Your task to perform on an android device: turn on javascript in the chrome app Image 0: 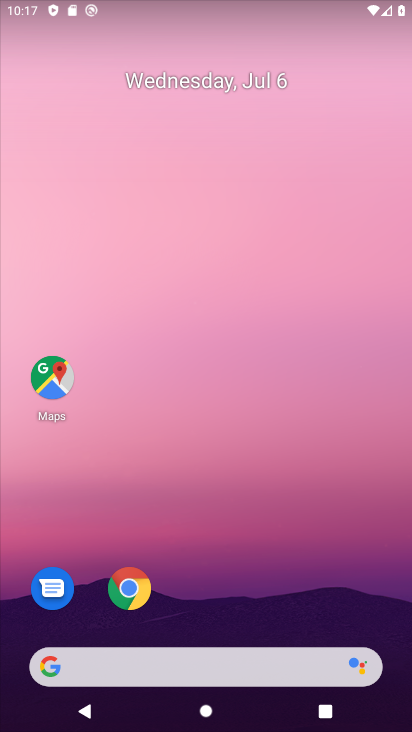
Step 0: click (124, 596)
Your task to perform on an android device: turn on javascript in the chrome app Image 1: 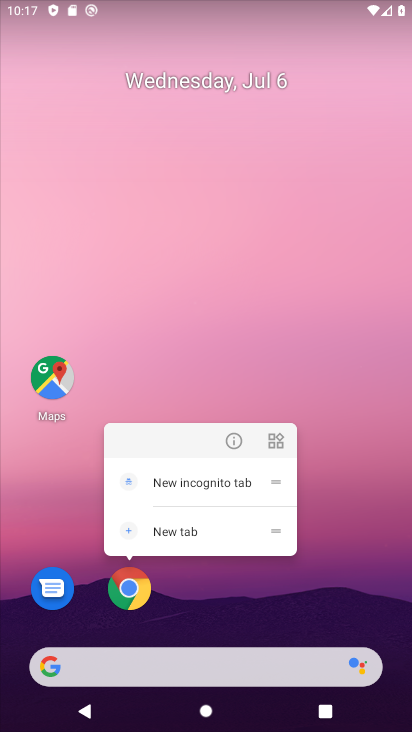
Step 1: click (141, 583)
Your task to perform on an android device: turn on javascript in the chrome app Image 2: 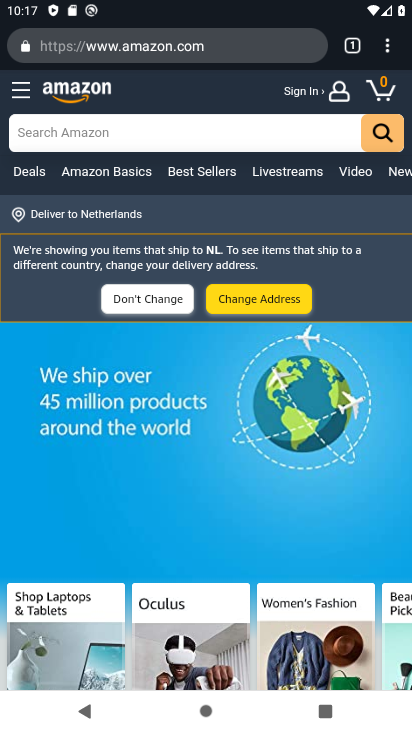
Step 2: click (386, 63)
Your task to perform on an android device: turn on javascript in the chrome app Image 3: 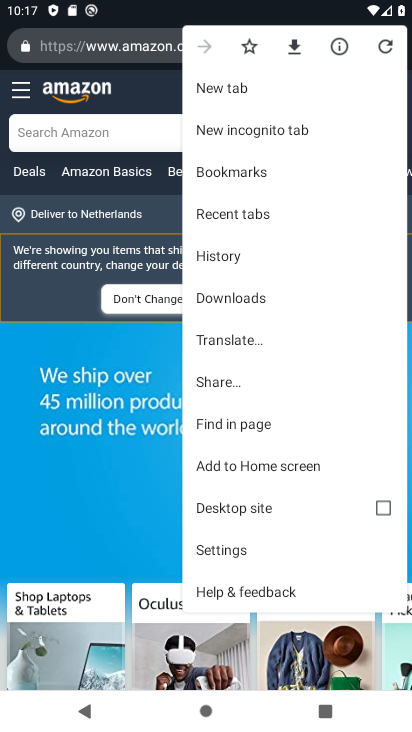
Step 3: click (238, 550)
Your task to perform on an android device: turn on javascript in the chrome app Image 4: 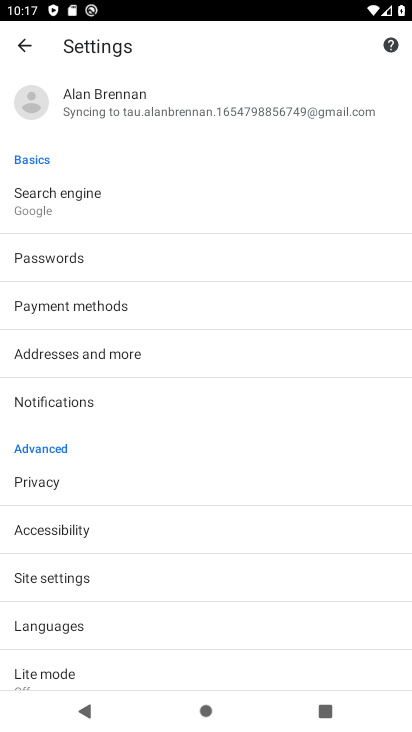
Step 4: click (72, 577)
Your task to perform on an android device: turn on javascript in the chrome app Image 5: 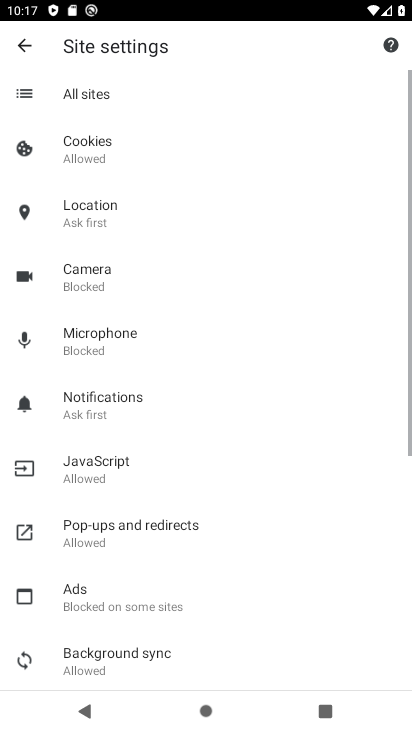
Step 5: click (132, 458)
Your task to perform on an android device: turn on javascript in the chrome app Image 6: 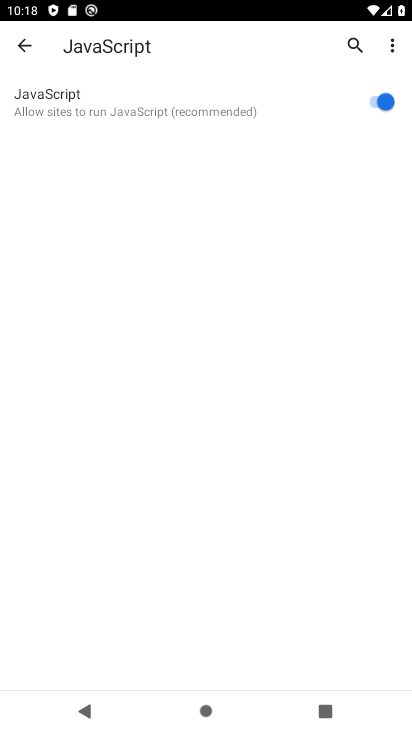
Step 6: task complete